Your task to perform on an android device: Open Maps and search for coffee Image 0: 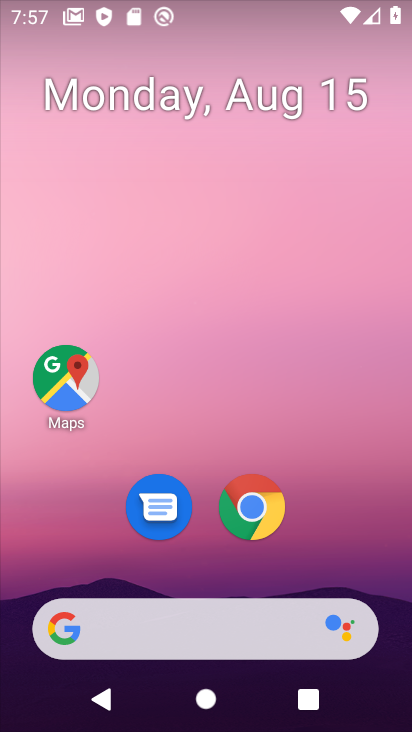
Step 0: click (56, 406)
Your task to perform on an android device: Open Maps and search for coffee Image 1: 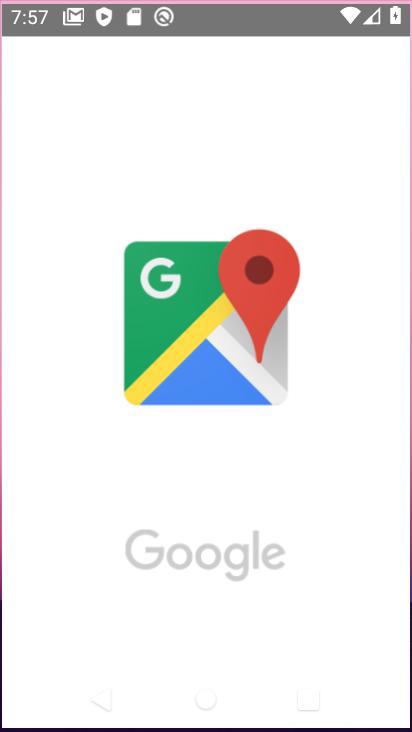
Step 1: click (78, 389)
Your task to perform on an android device: Open Maps and search for coffee Image 2: 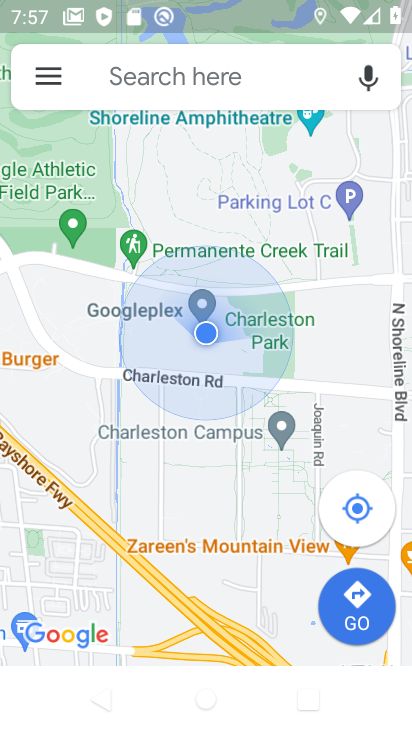
Step 2: click (200, 91)
Your task to perform on an android device: Open Maps and search for coffee Image 3: 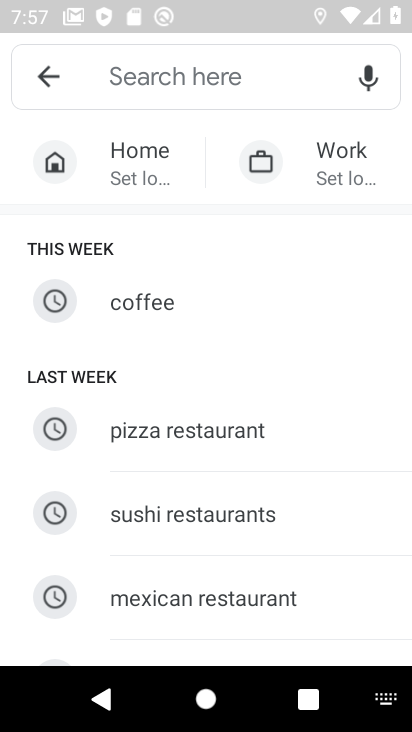
Step 3: click (189, 286)
Your task to perform on an android device: Open Maps and search for coffee Image 4: 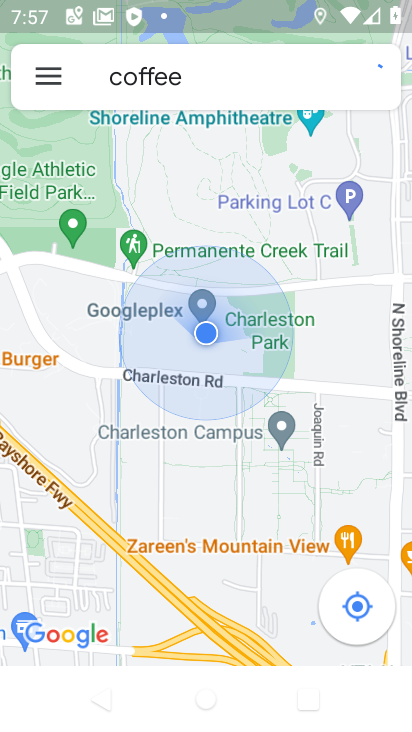
Step 4: task complete